Your task to perform on an android device: clear history in the chrome app Image 0: 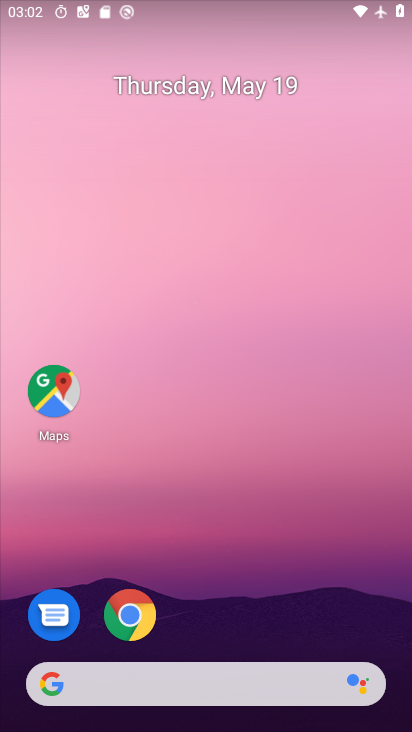
Step 0: drag from (282, 551) to (166, 1)
Your task to perform on an android device: clear history in the chrome app Image 1: 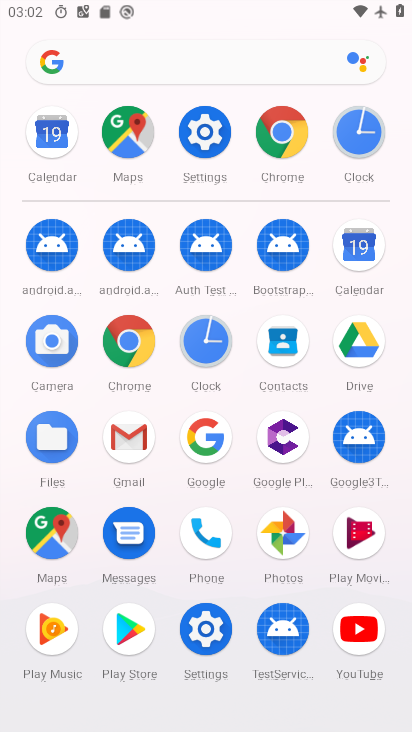
Step 1: drag from (10, 575) to (18, 200)
Your task to perform on an android device: clear history in the chrome app Image 2: 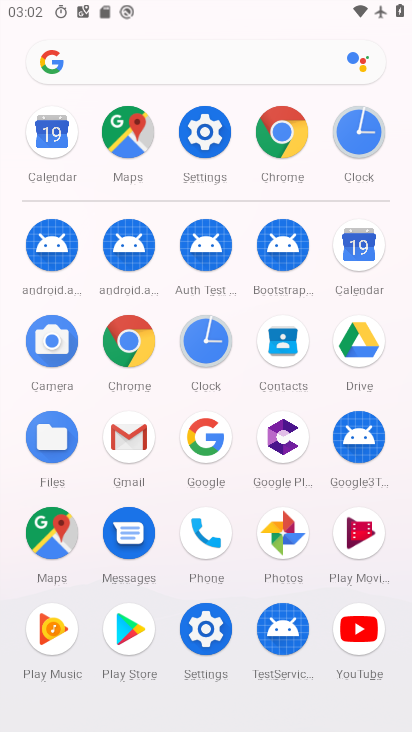
Step 2: click (130, 340)
Your task to perform on an android device: clear history in the chrome app Image 3: 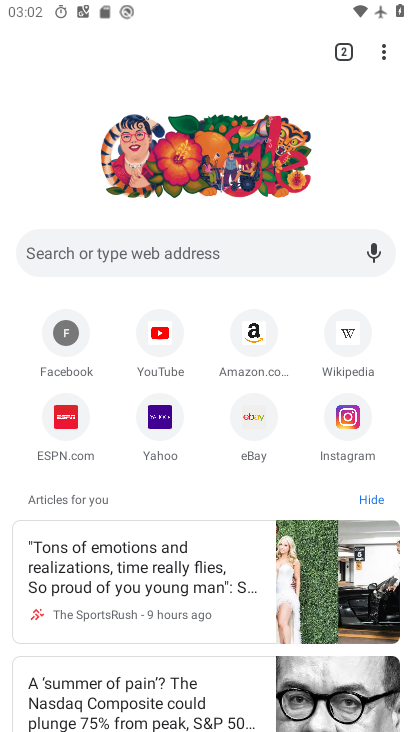
Step 3: drag from (381, 51) to (181, 303)
Your task to perform on an android device: clear history in the chrome app Image 4: 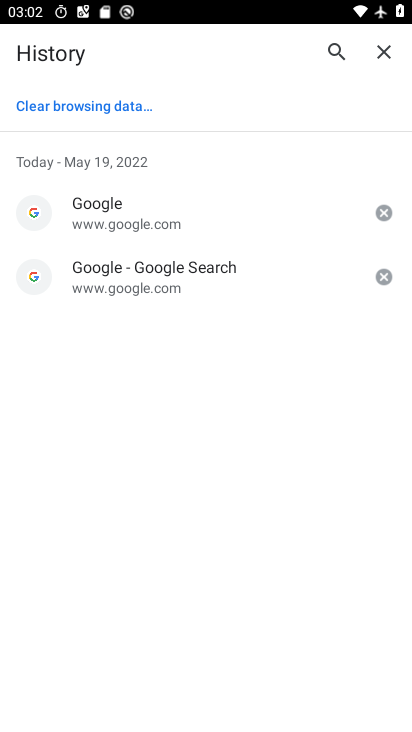
Step 4: click (75, 101)
Your task to perform on an android device: clear history in the chrome app Image 5: 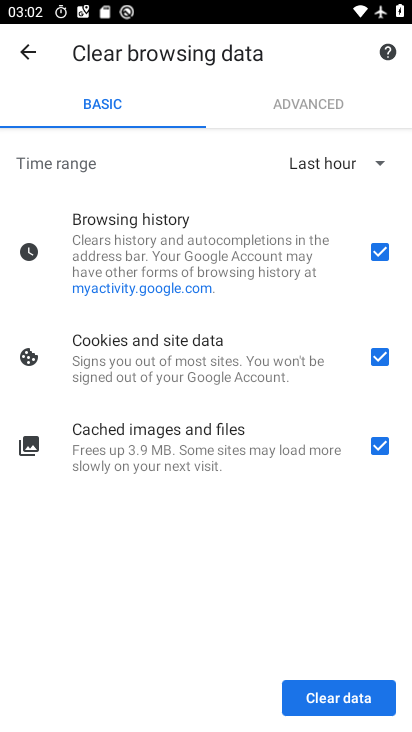
Step 5: click (305, 691)
Your task to perform on an android device: clear history in the chrome app Image 6: 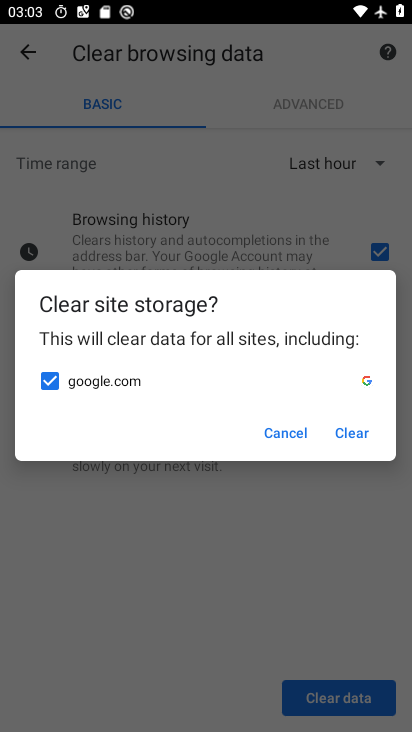
Step 6: click (345, 427)
Your task to perform on an android device: clear history in the chrome app Image 7: 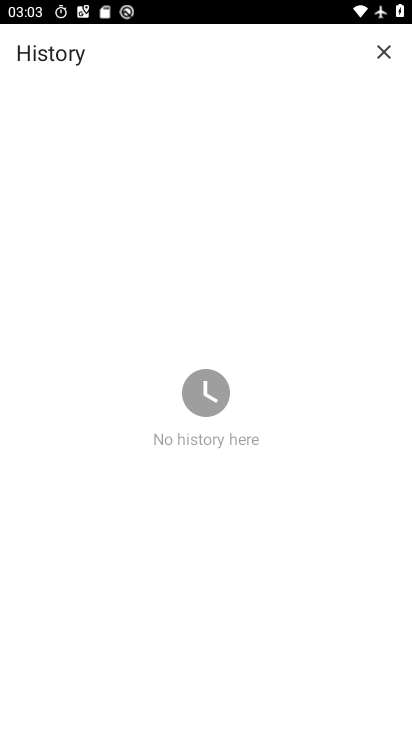
Step 7: task complete